Your task to perform on an android device: delete the emails in spam in the gmail app Image 0: 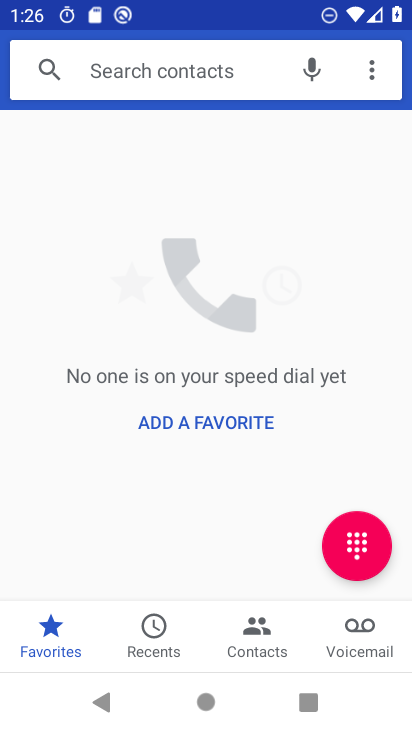
Step 0: press home button
Your task to perform on an android device: delete the emails in spam in the gmail app Image 1: 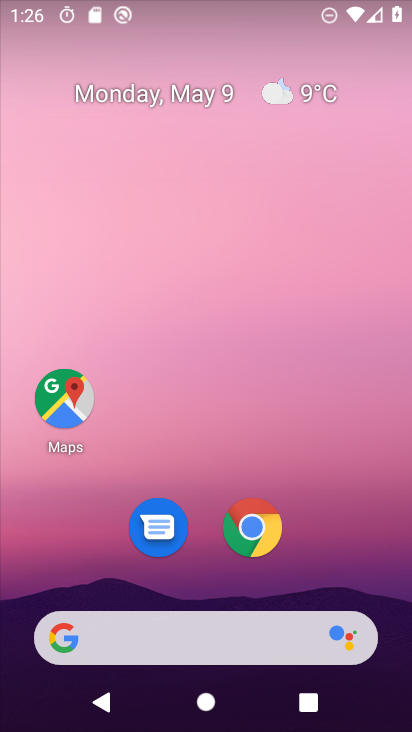
Step 1: drag from (180, 584) to (301, 88)
Your task to perform on an android device: delete the emails in spam in the gmail app Image 2: 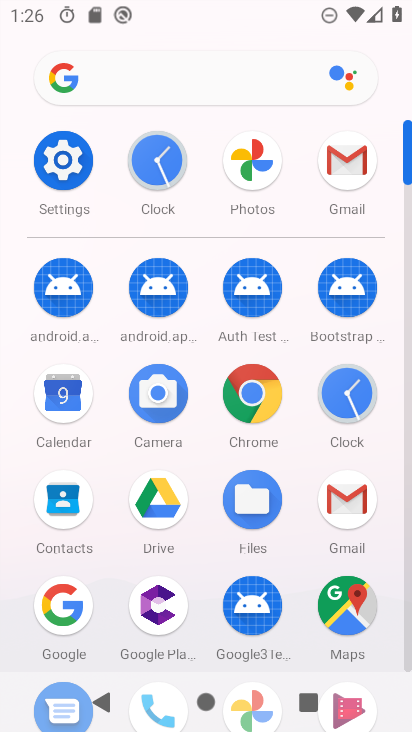
Step 2: click (342, 170)
Your task to perform on an android device: delete the emails in spam in the gmail app Image 3: 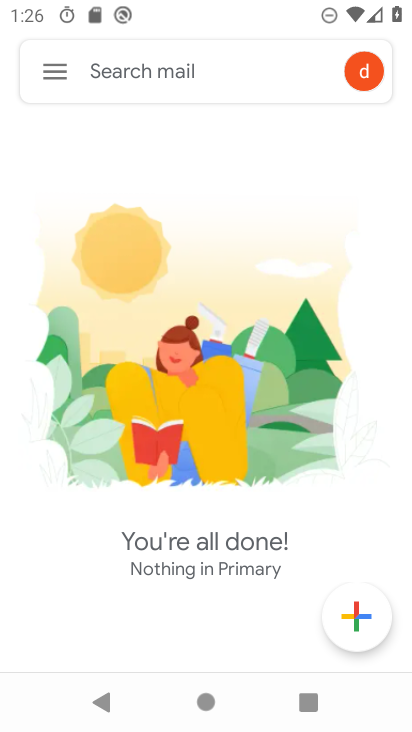
Step 3: click (49, 66)
Your task to perform on an android device: delete the emails in spam in the gmail app Image 4: 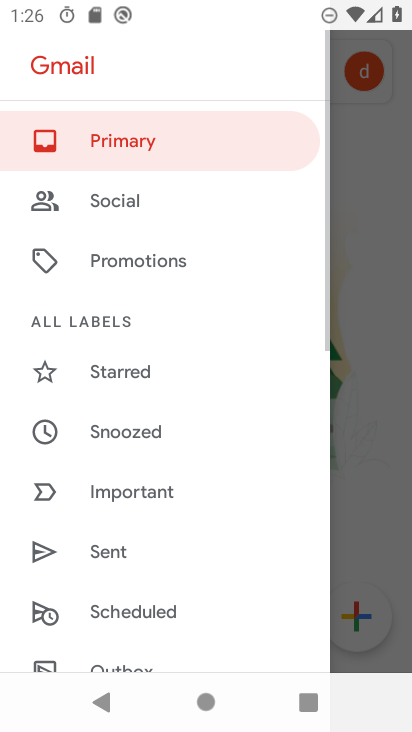
Step 4: drag from (121, 645) to (245, 151)
Your task to perform on an android device: delete the emails in spam in the gmail app Image 5: 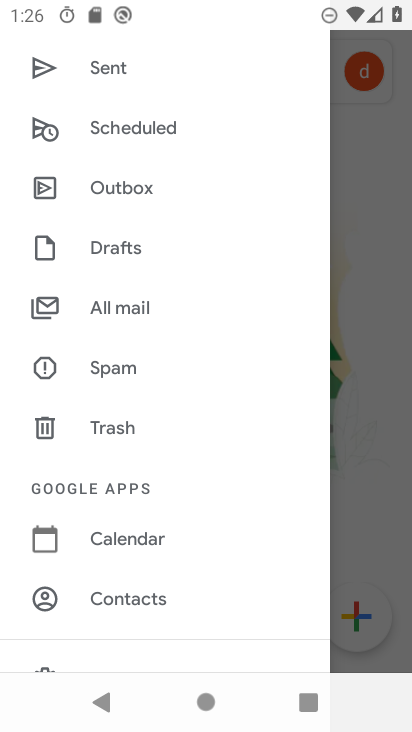
Step 5: click (139, 364)
Your task to perform on an android device: delete the emails in spam in the gmail app Image 6: 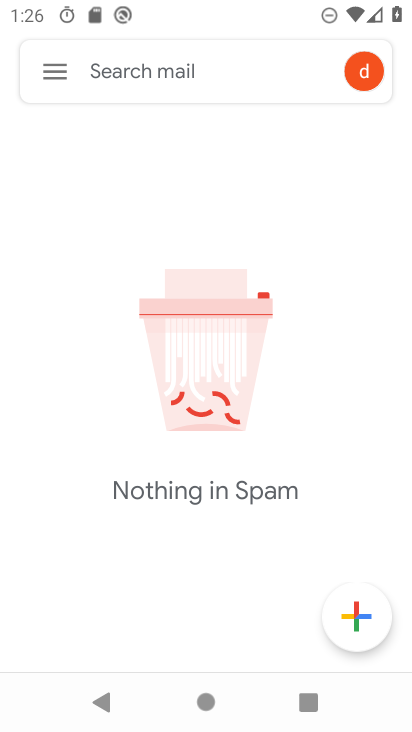
Step 6: task complete